Your task to perform on an android device: choose inbox layout in the gmail app Image 0: 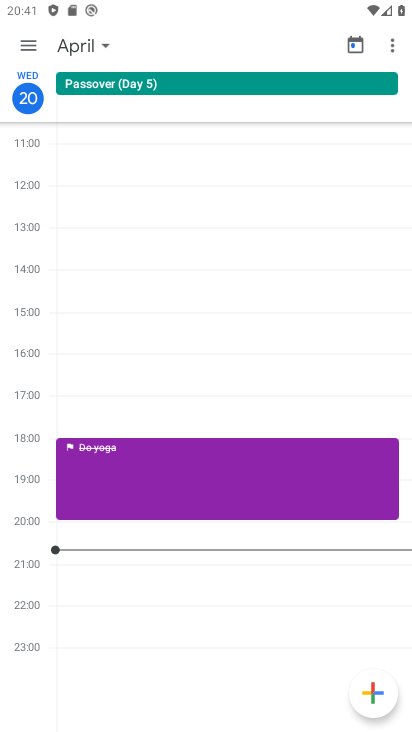
Step 0: press home button
Your task to perform on an android device: choose inbox layout in the gmail app Image 1: 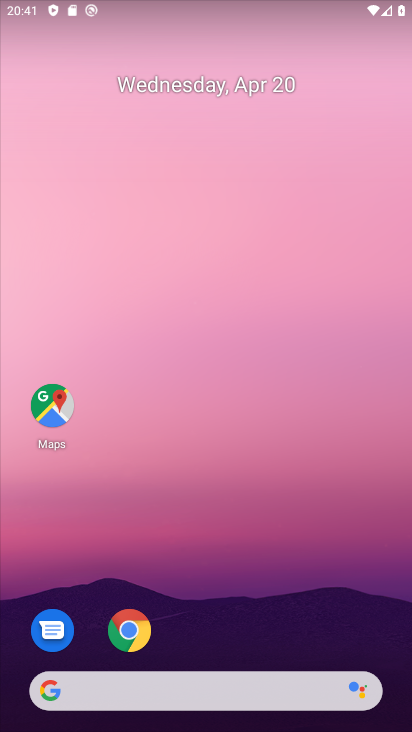
Step 1: drag from (199, 617) to (217, 171)
Your task to perform on an android device: choose inbox layout in the gmail app Image 2: 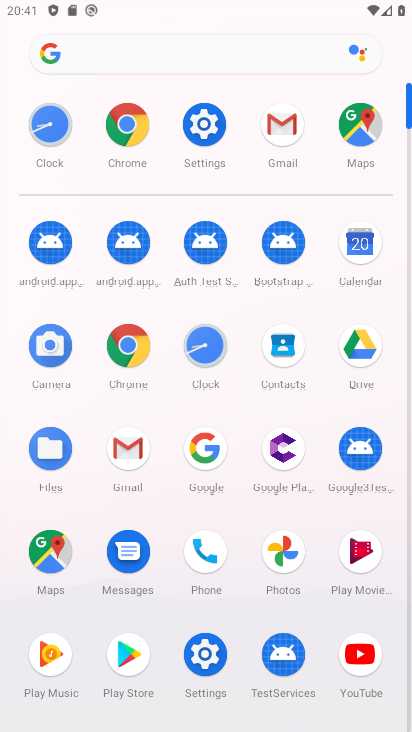
Step 2: click (282, 120)
Your task to perform on an android device: choose inbox layout in the gmail app Image 3: 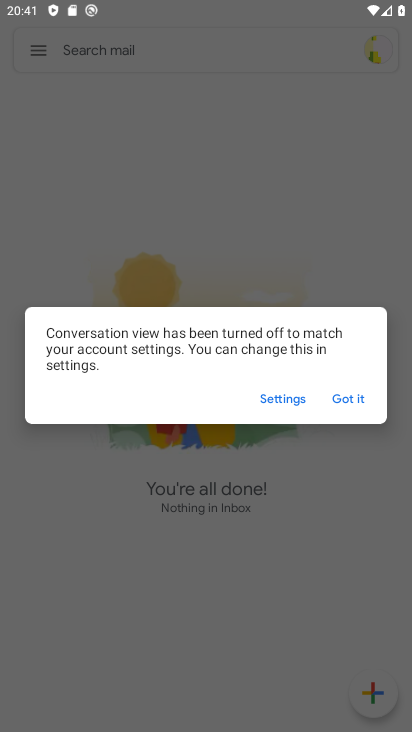
Step 3: click (339, 400)
Your task to perform on an android device: choose inbox layout in the gmail app Image 4: 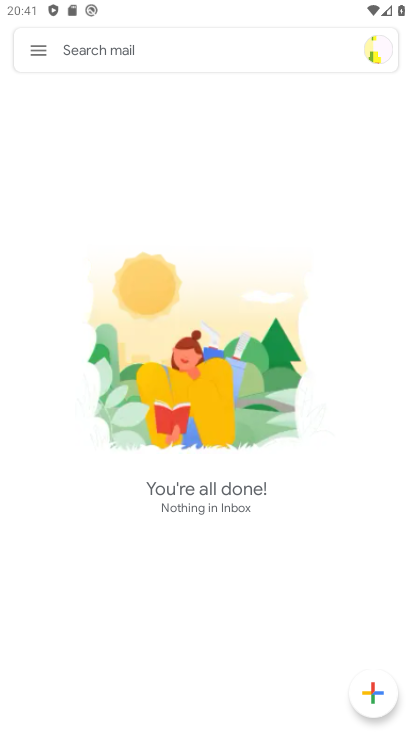
Step 4: click (38, 50)
Your task to perform on an android device: choose inbox layout in the gmail app Image 5: 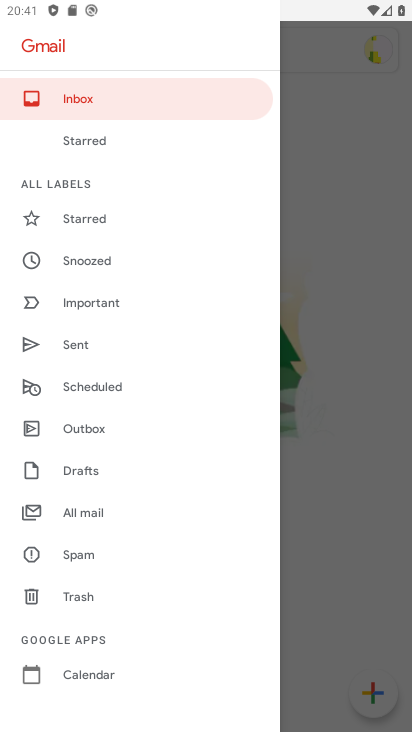
Step 5: drag from (117, 656) to (107, 200)
Your task to perform on an android device: choose inbox layout in the gmail app Image 6: 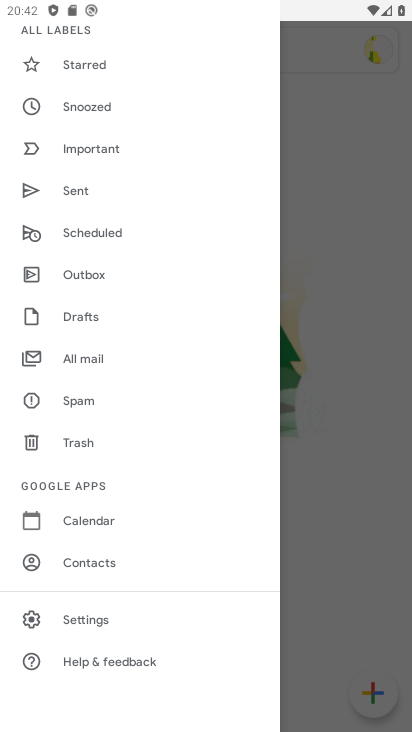
Step 6: click (76, 620)
Your task to perform on an android device: choose inbox layout in the gmail app Image 7: 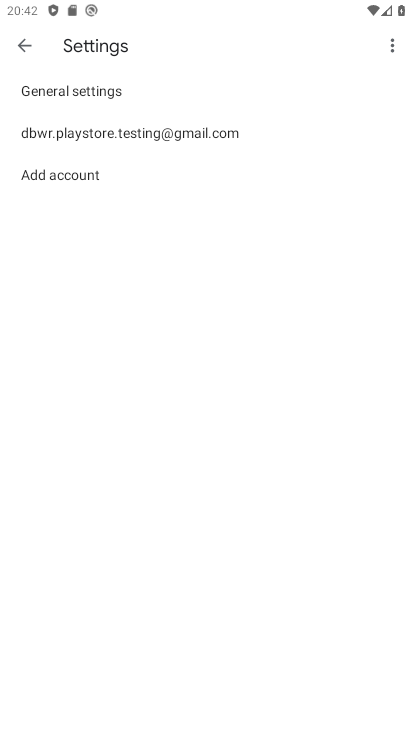
Step 7: click (99, 129)
Your task to perform on an android device: choose inbox layout in the gmail app Image 8: 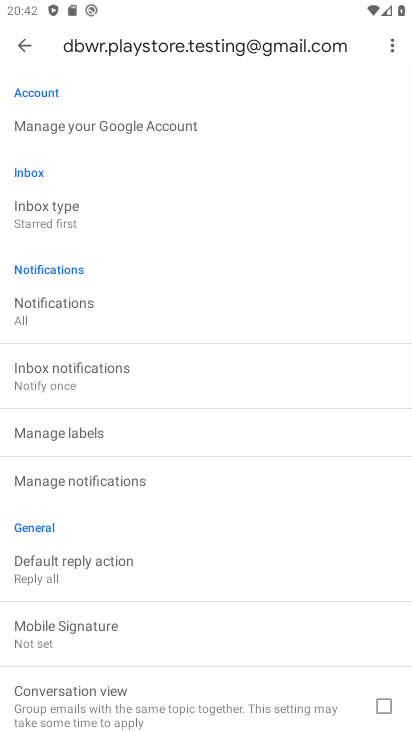
Step 8: click (68, 208)
Your task to perform on an android device: choose inbox layout in the gmail app Image 9: 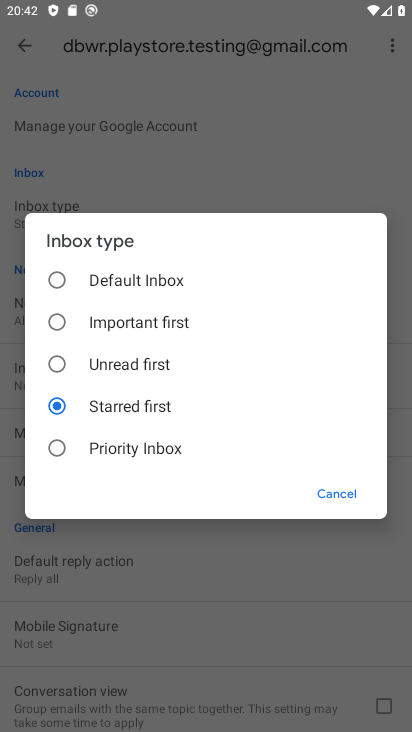
Step 9: click (60, 449)
Your task to perform on an android device: choose inbox layout in the gmail app Image 10: 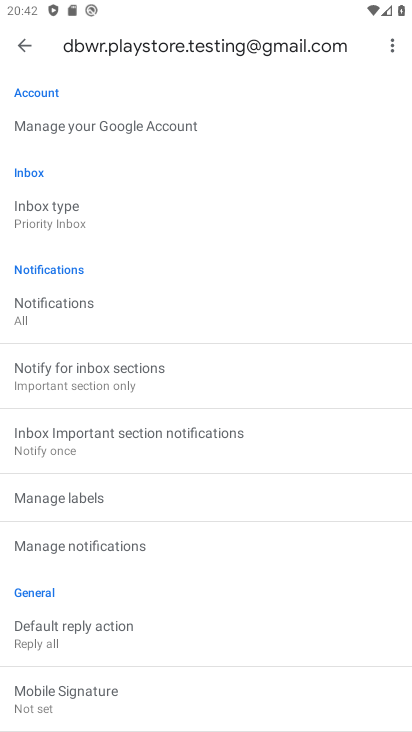
Step 10: task complete